Your task to perform on an android device: empty trash in the gmail app Image 0: 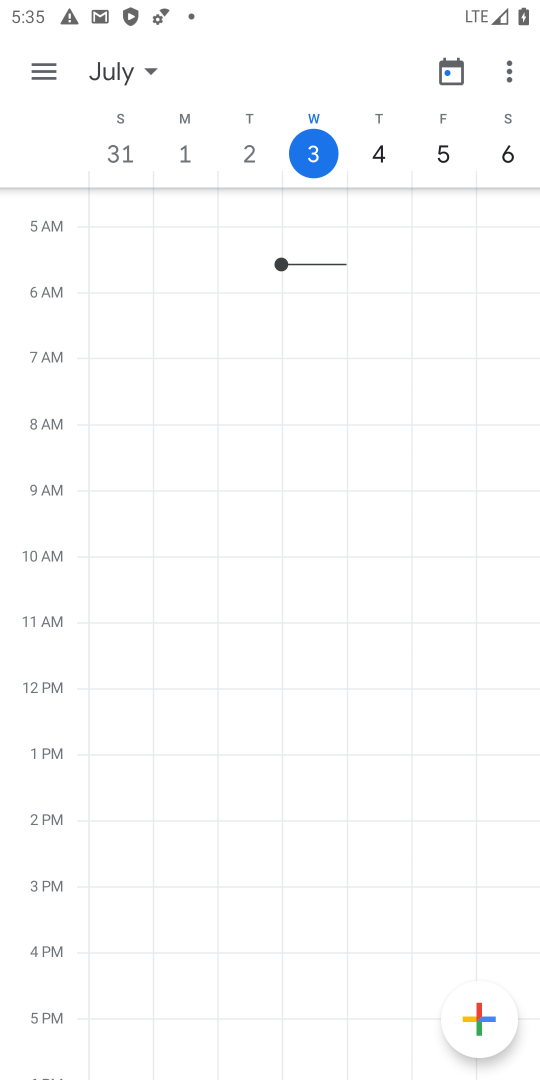
Step 0: press home button
Your task to perform on an android device: empty trash in the gmail app Image 1: 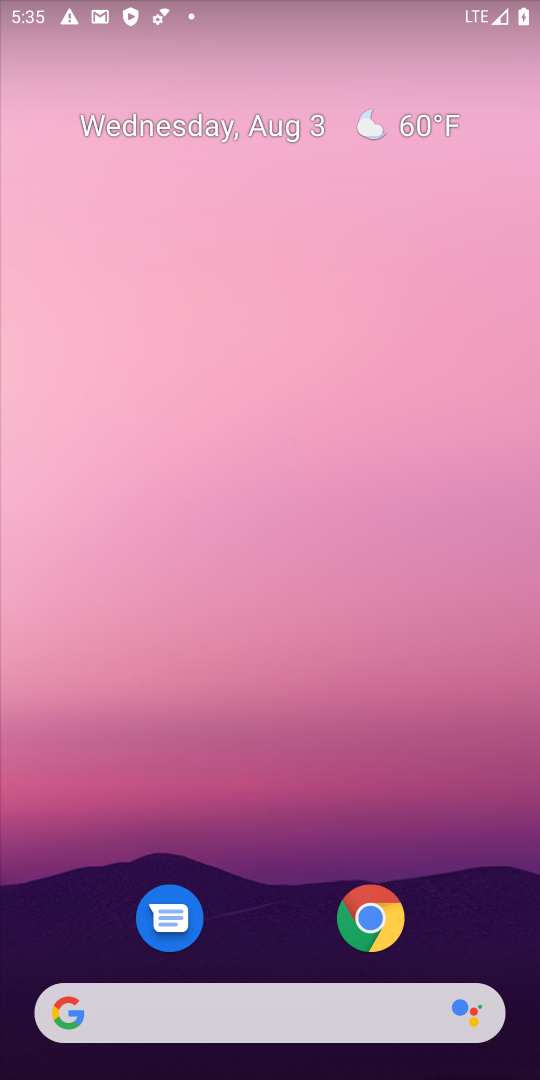
Step 1: drag from (226, 1020) to (144, 97)
Your task to perform on an android device: empty trash in the gmail app Image 2: 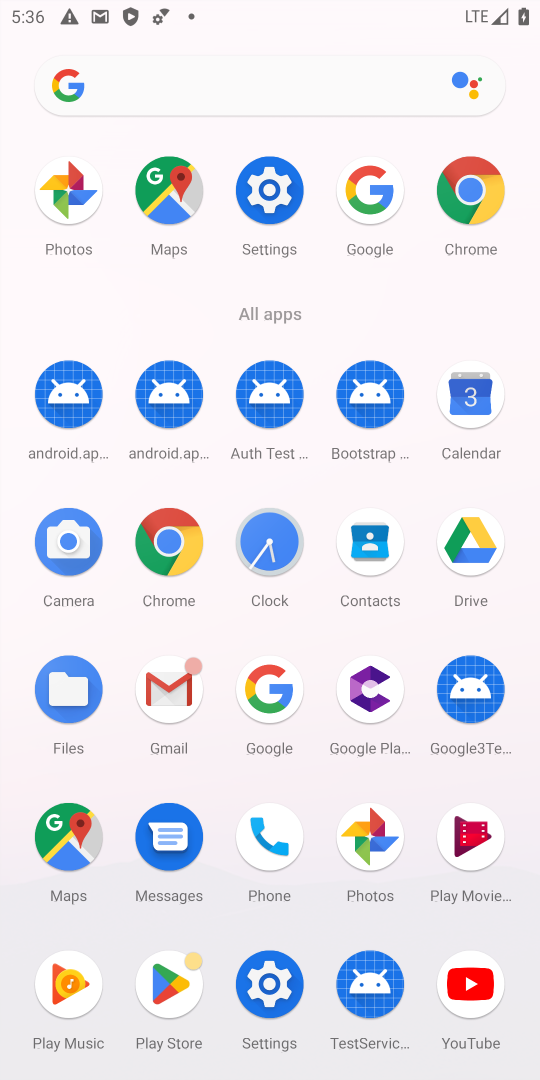
Step 2: click (164, 668)
Your task to perform on an android device: empty trash in the gmail app Image 3: 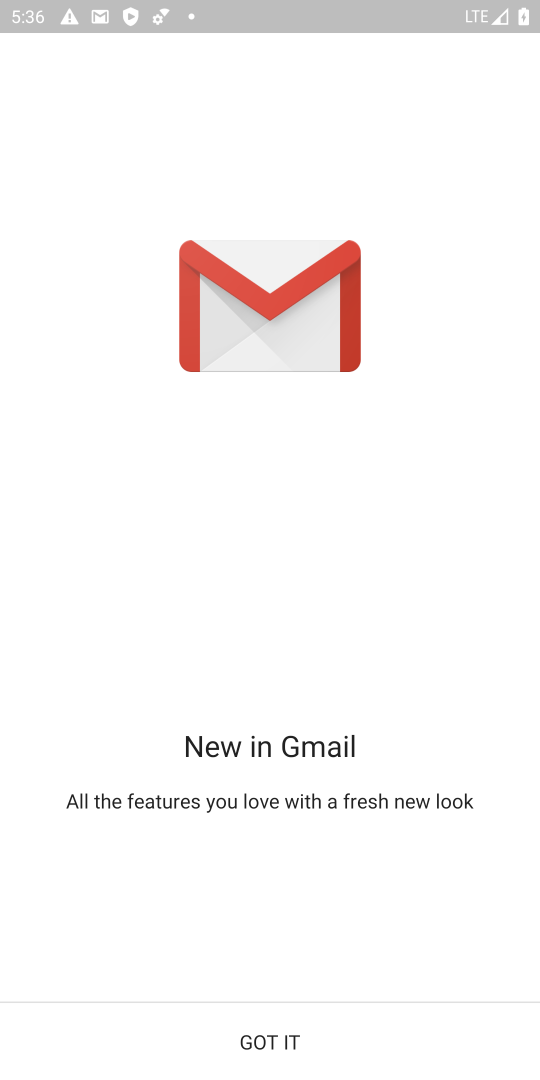
Step 3: click (255, 1029)
Your task to perform on an android device: empty trash in the gmail app Image 4: 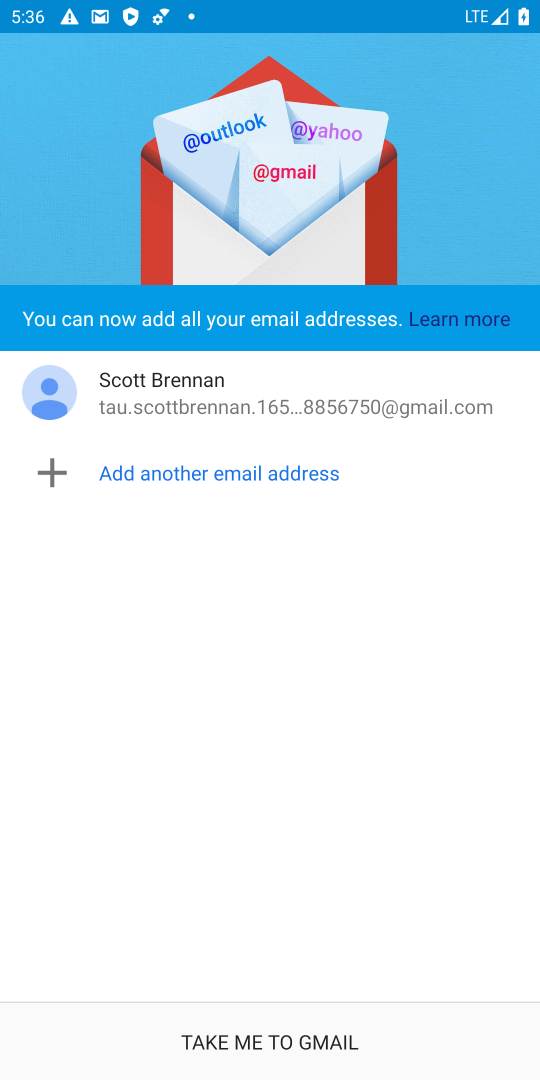
Step 4: click (232, 1030)
Your task to perform on an android device: empty trash in the gmail app Image 5: 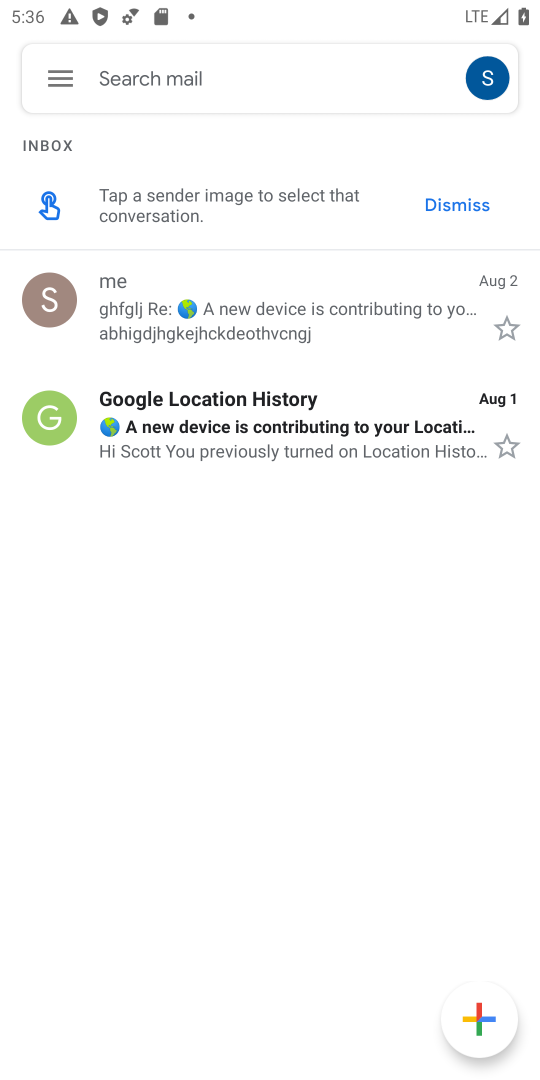
Step 5: click (46, 96)
Your task to perform on an android device: empty trash in the gmail app Image 6: 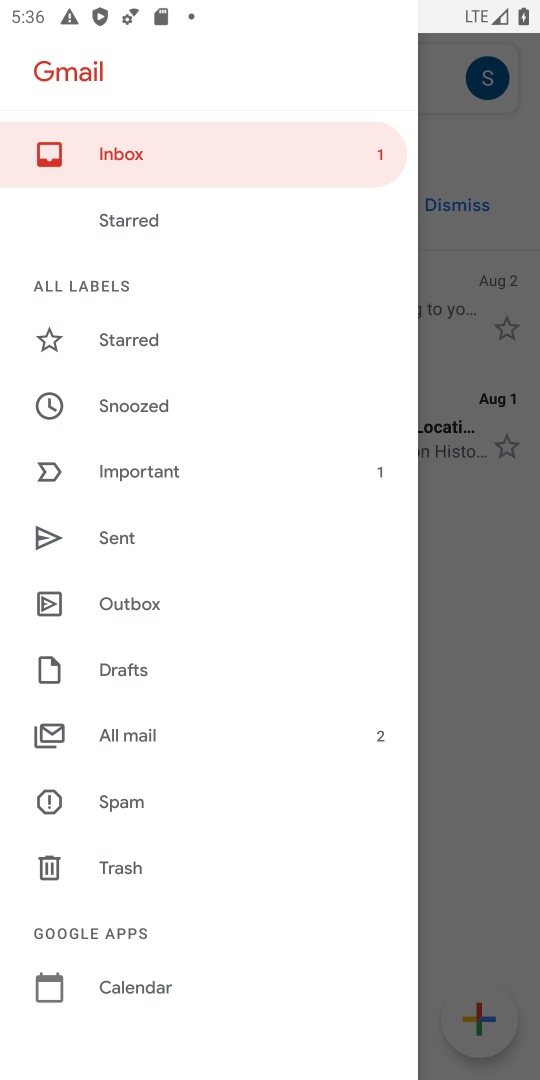
Step 6: click (122, 871)
Your task to perform on an android device: empty trash in the gmail app Image 7: 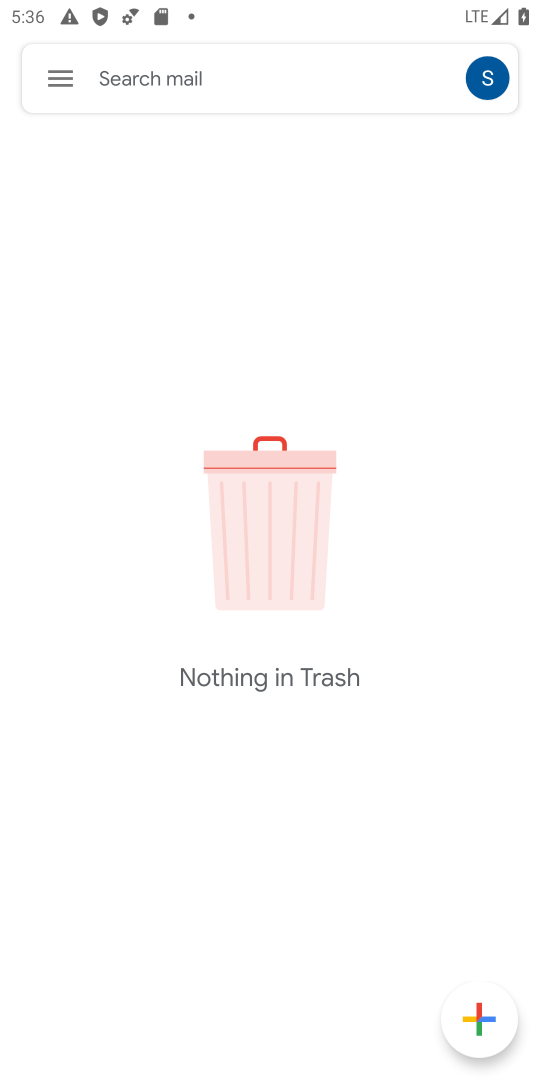
Step 7: task complete